Your task to perform on an android device: What's the news this evening? Image 0: 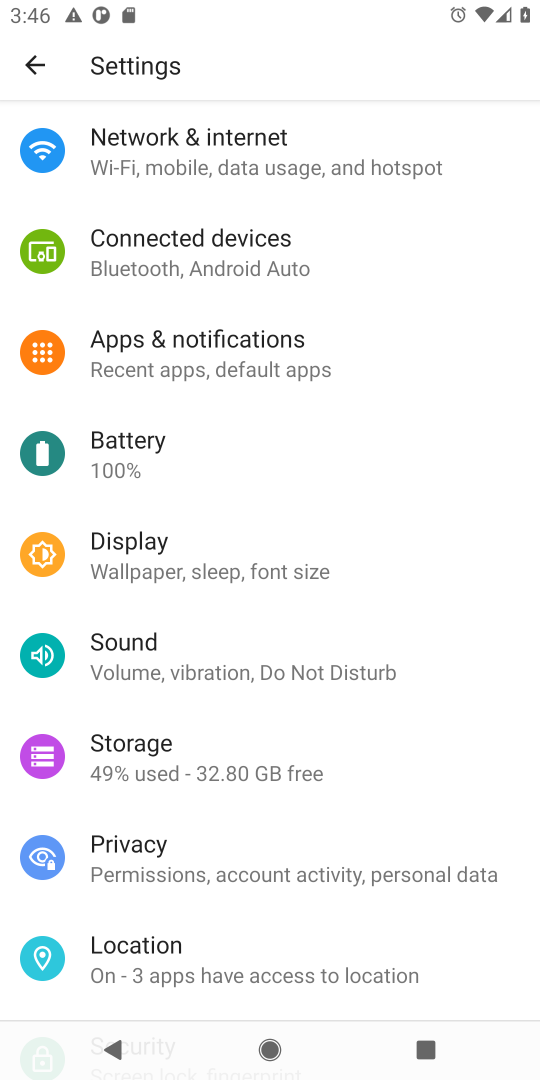
Step 0: press home button
Your task to perform on an android device: What's the news this evening? Image 1: 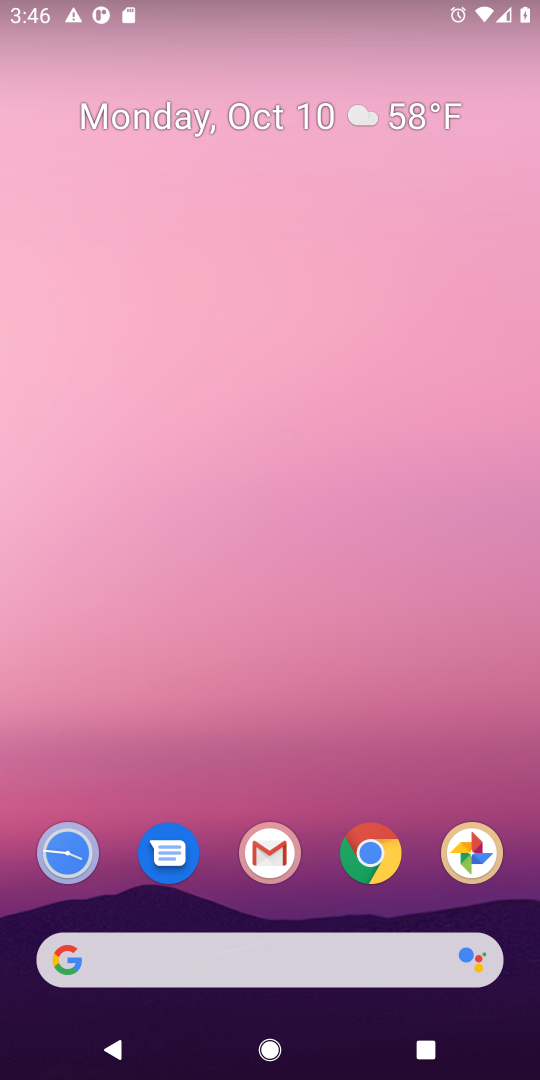
Step 1: click (369, 860)
Your task to perform on an android device: What's the news this evening? Image 2: 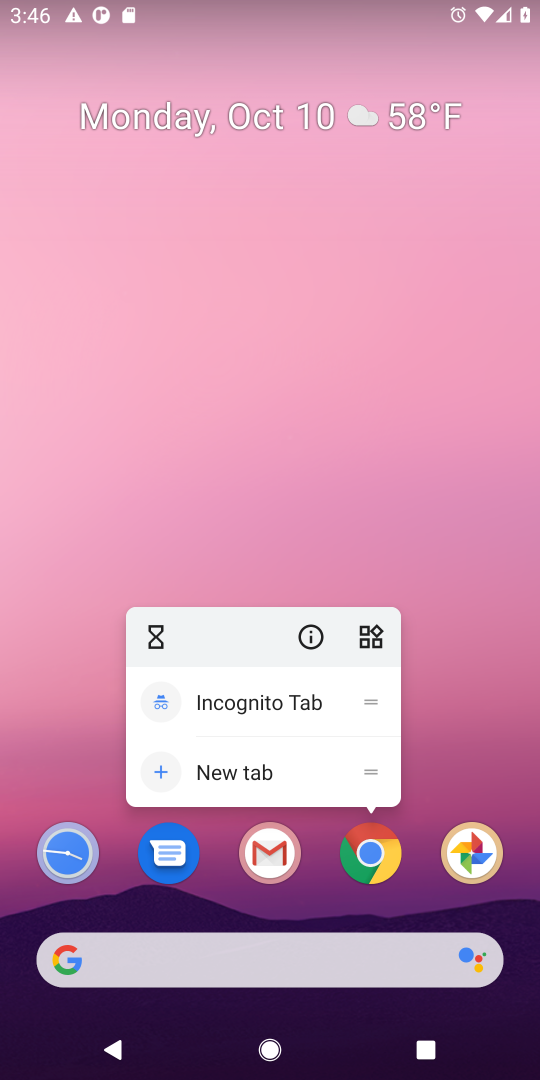
Step 2: click (470, 717)
Your task to perform on an android device: What's the news this evening? Image 3: 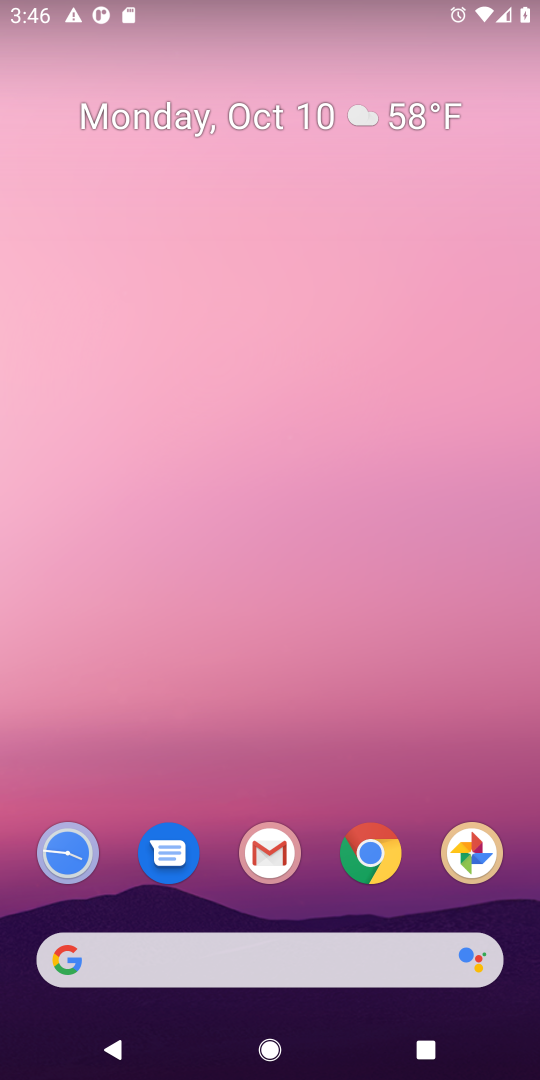
Step 3: click (372, 855)
Your task to perform on an android device: What's the news this evening? Image 4: 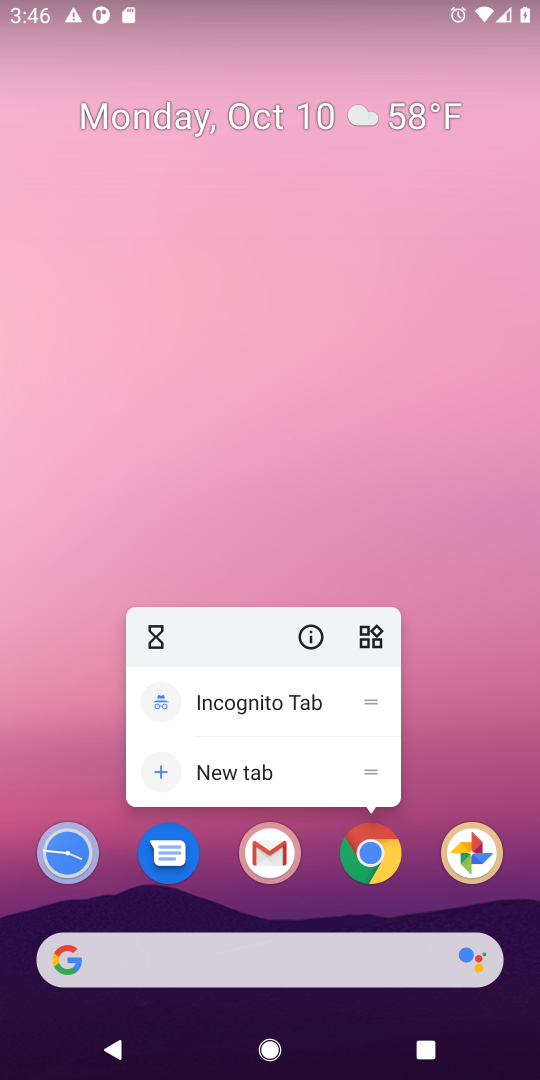
Step 4: click (372, 855)
Your task to perform on an android device: What's the news this evening? Image 5: 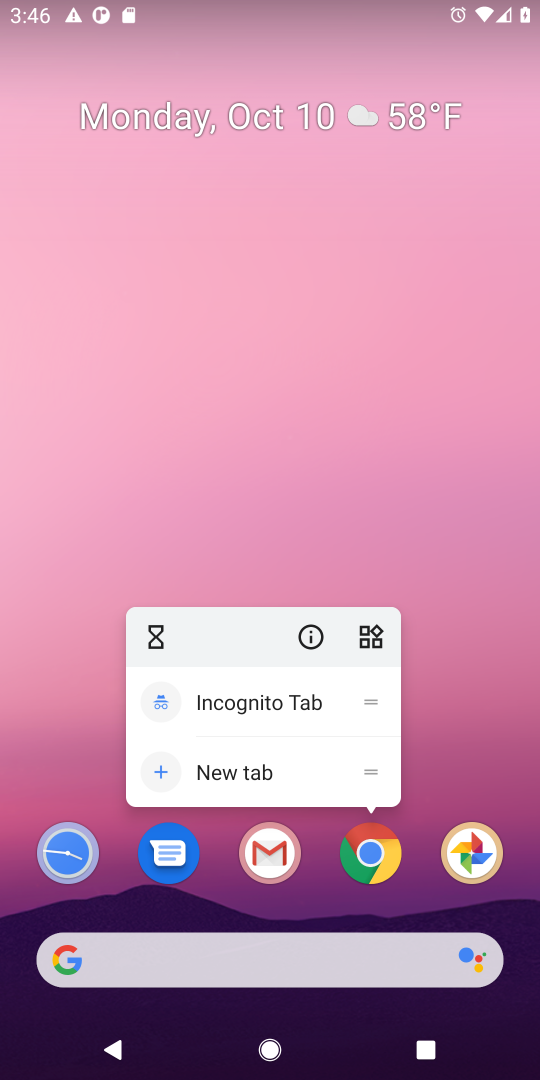
Step 5: click (372, 855)
Your task to perform on an android device: What's the news this evening? Image 6: 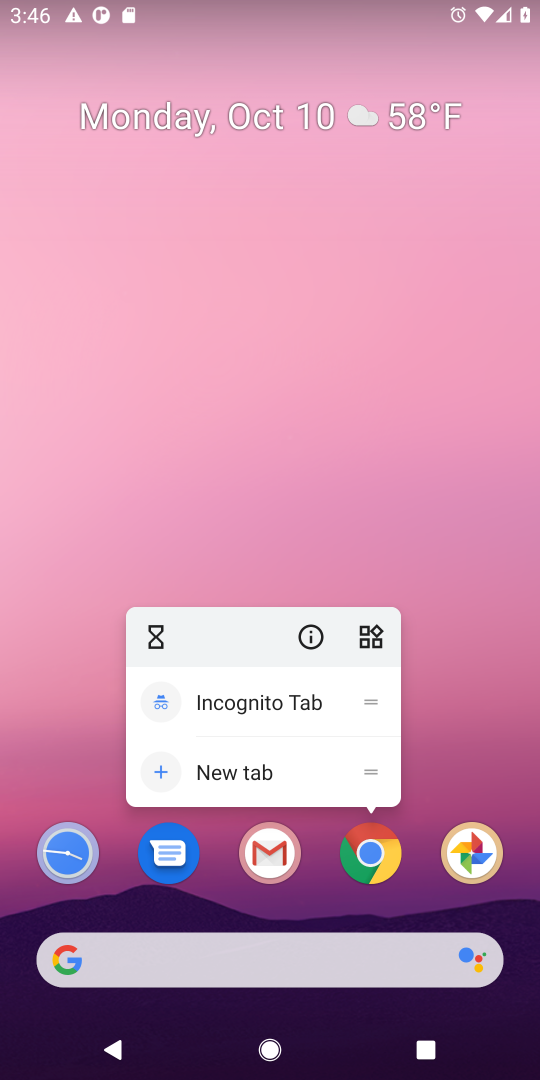
Step 6: click (372, 855)
Your task to perform on an android device: What's the news this evening? Image 7: 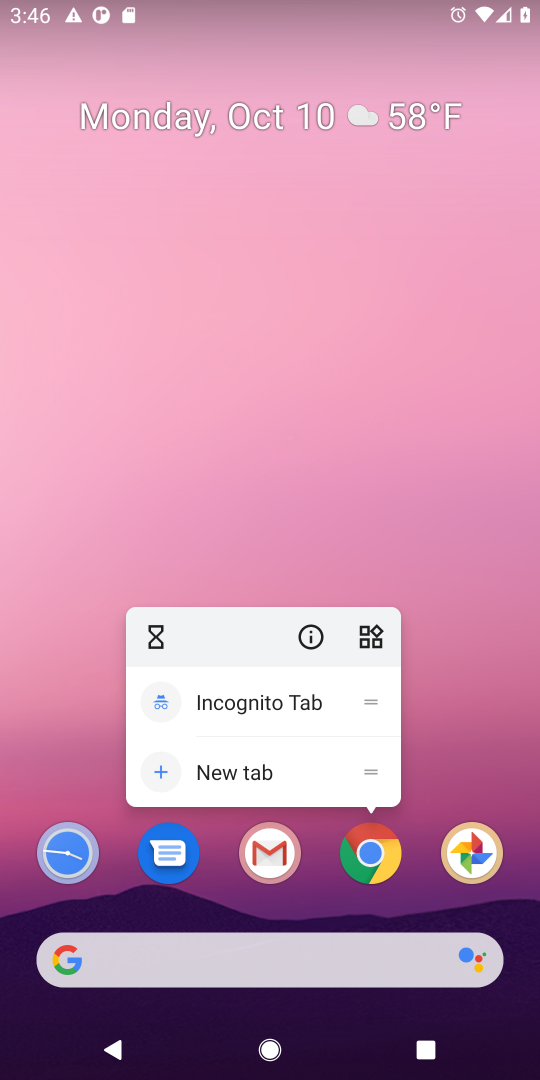
Step 7: click (390, 864)
Your task to perform on an android device: What's the news this evening? Image 8: 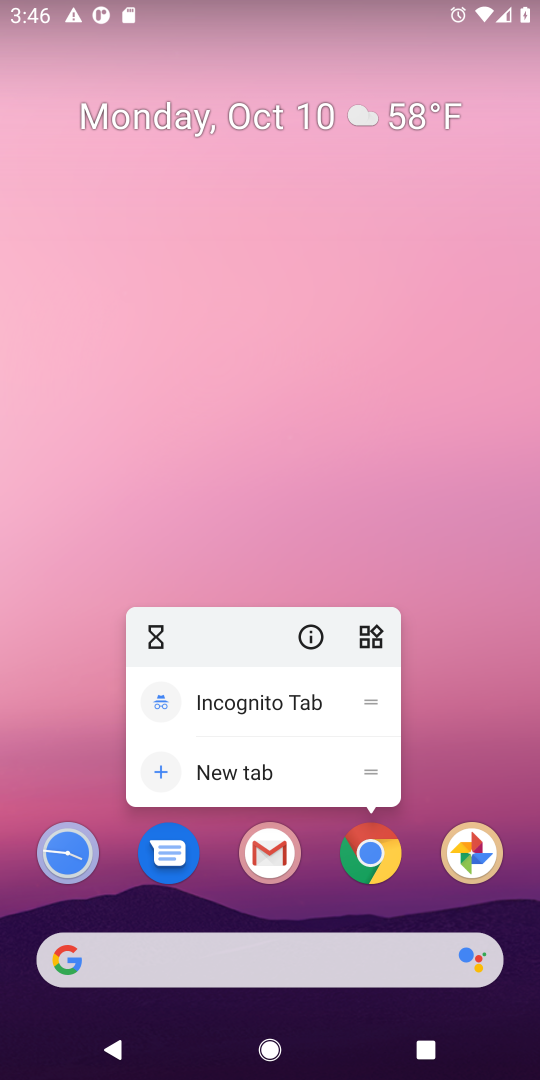
Step 8: click (367, 860)
Your task to perform on an android device: What's the news this evening? Image 9: 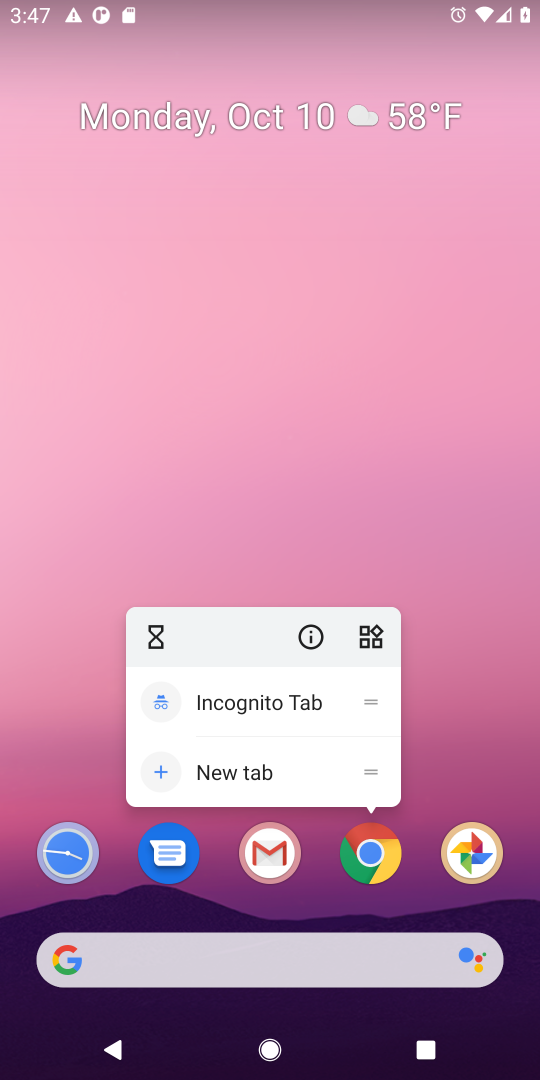
Step 9: click (367, 860)
Your task to perform on an android device: What's the news this evening? Image 10: 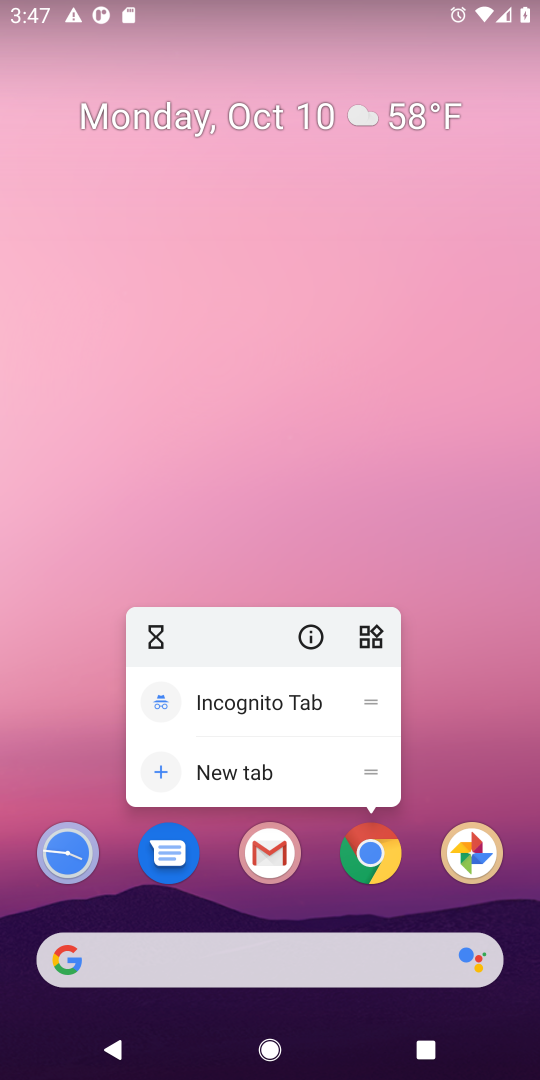
Step 10: click (383, 848)
Your task to perform on an android device: What's the news this evening? Image 11: 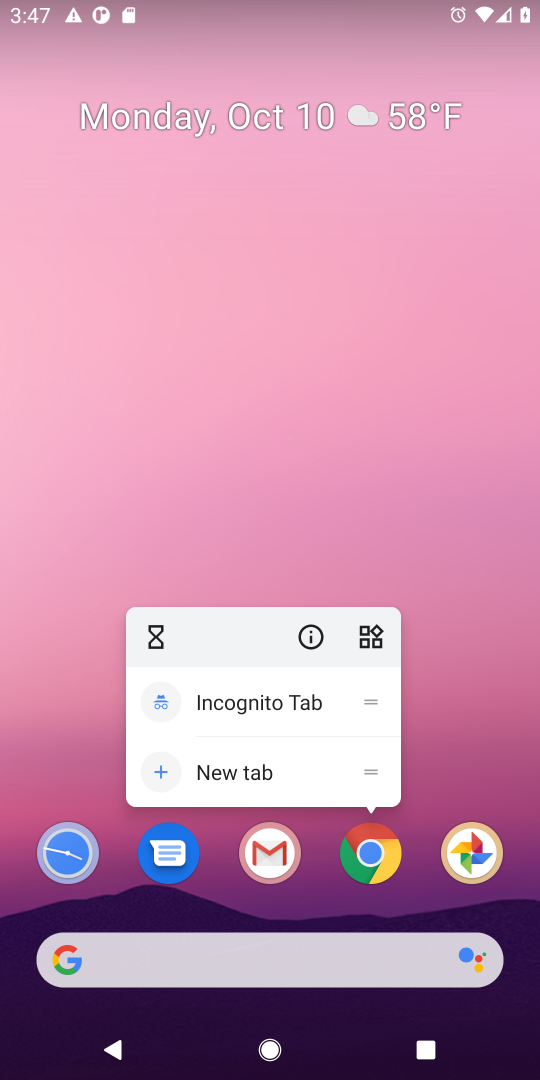
Step 11: click (389, 362)
Your task to perform on an android device: What's the news this evening? Image 12: 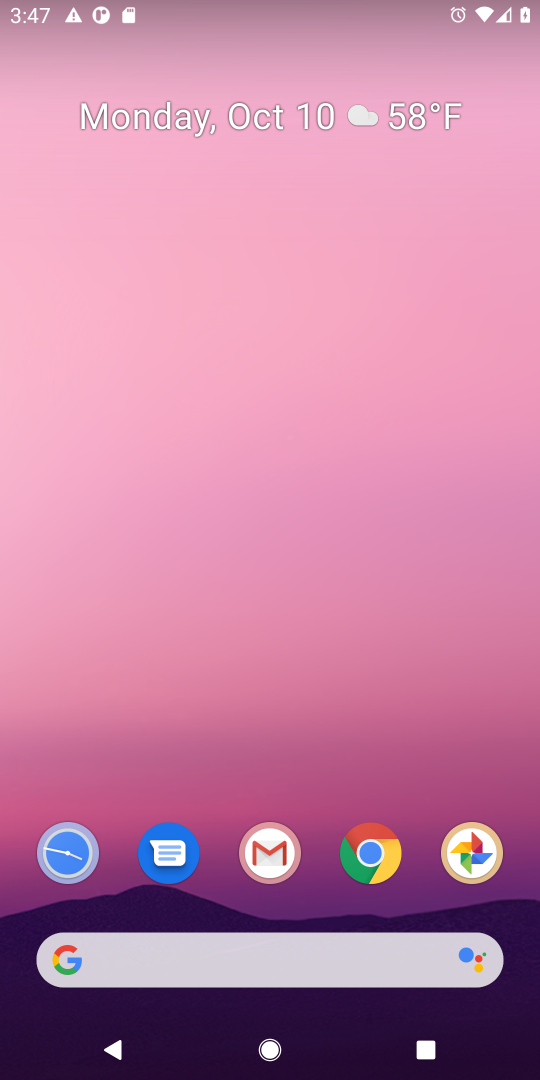
Step 12: drag from (359, 788) to (414, 0)
Your task to perform on an android device: What's the news this evening? Image 13: 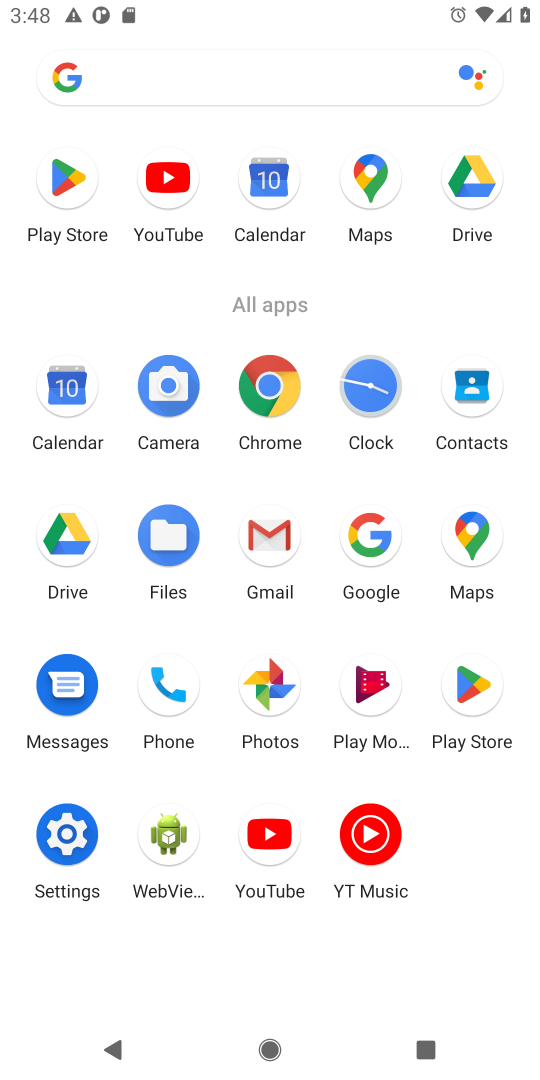
Step 13: click (270, 393)
Your task to perform on an android device: What's the news this evening? Image 14: 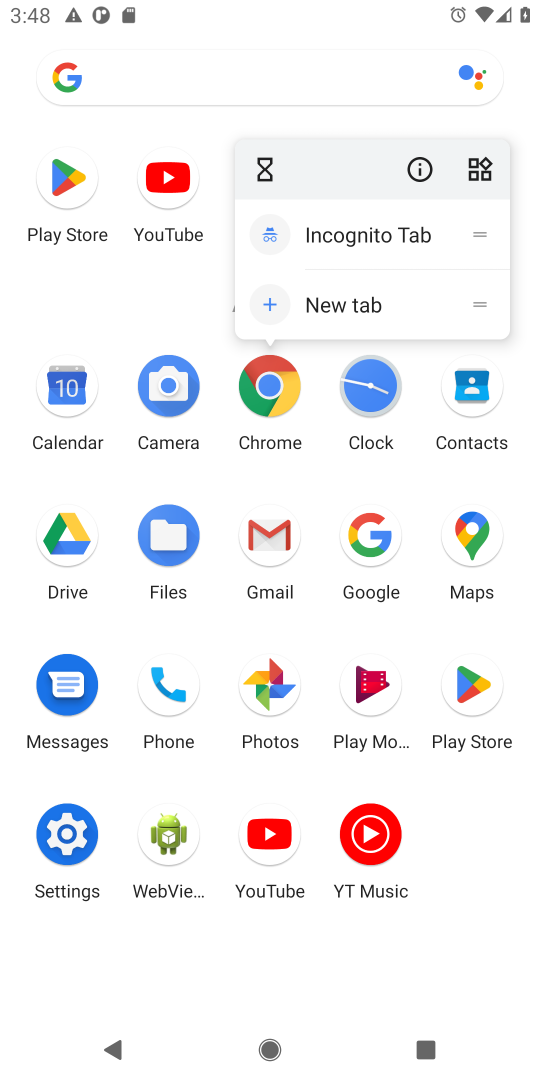
Step 14: click (267, 394)
Your task to perform on an android device: What's the news this evening? Image 15: 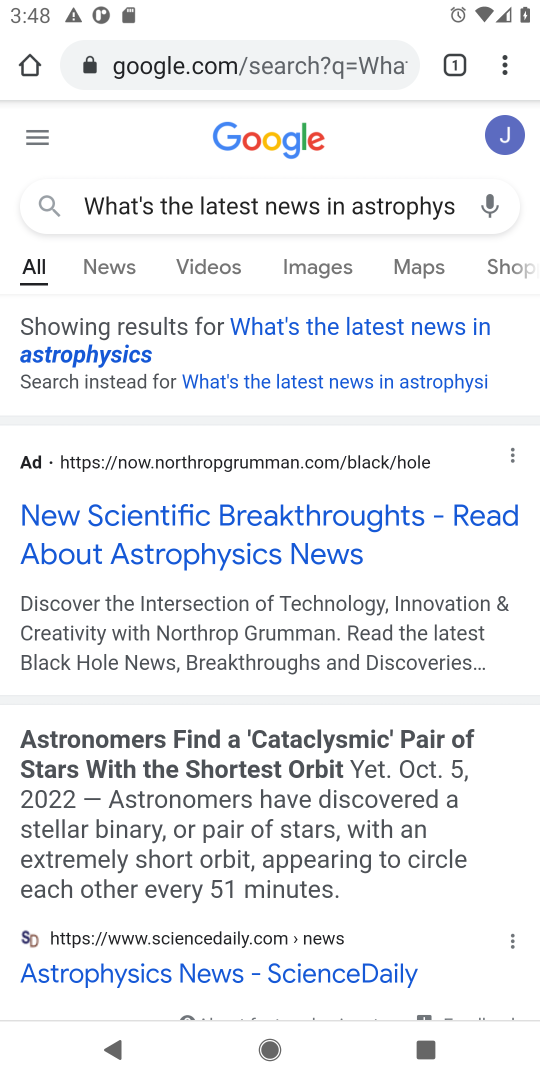
Step 15: click (179, 61)
Your task to perform on an android device: What's the news this evening? Image 16: 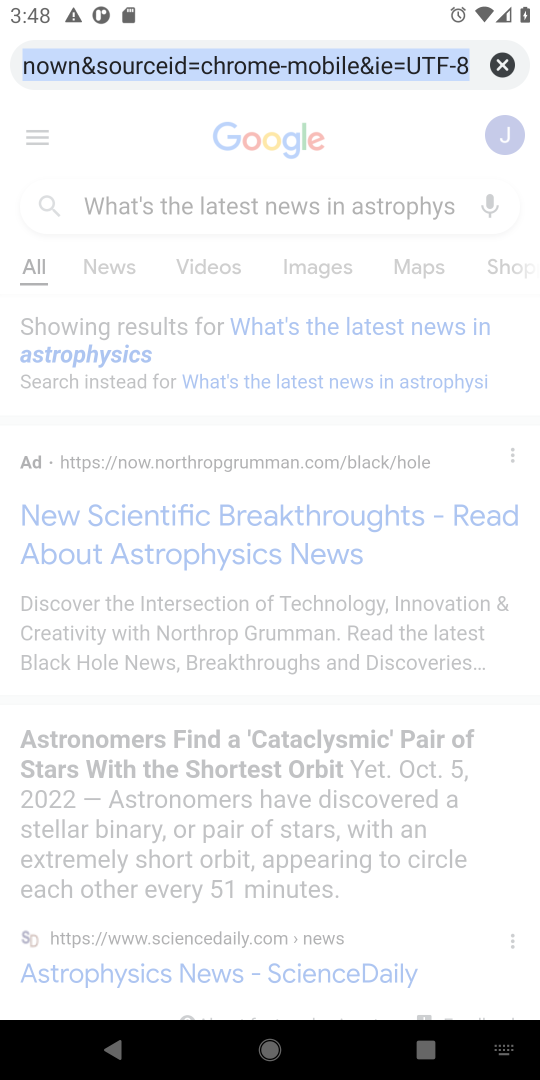
Step 16: click (498, 59)
Your task to perform on an android device: What's the news this evening? Image 17: 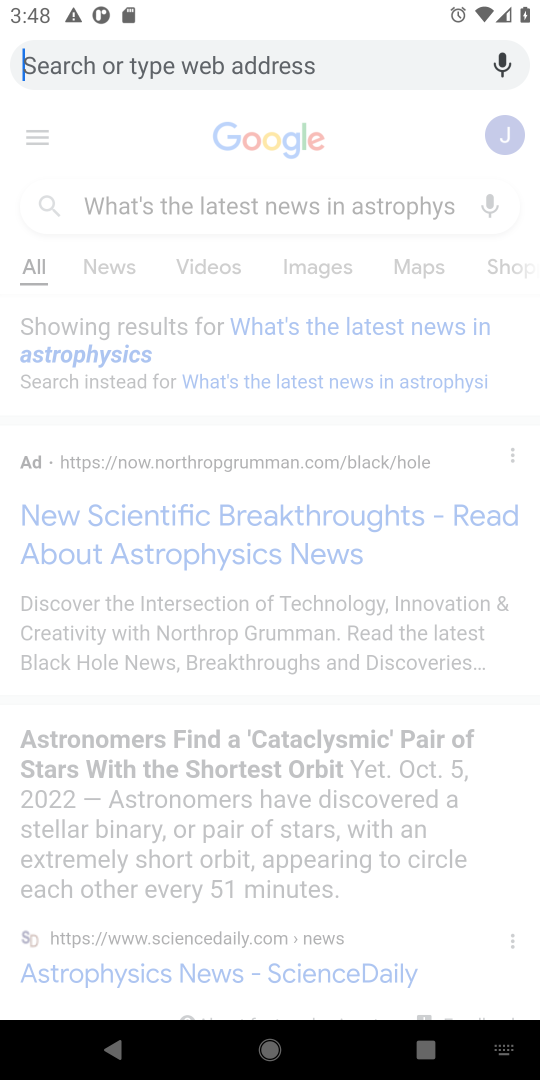
Step 17: type "What's the news this evening?"
Your task to perform on an android device: What's the news this evening? Image 18: 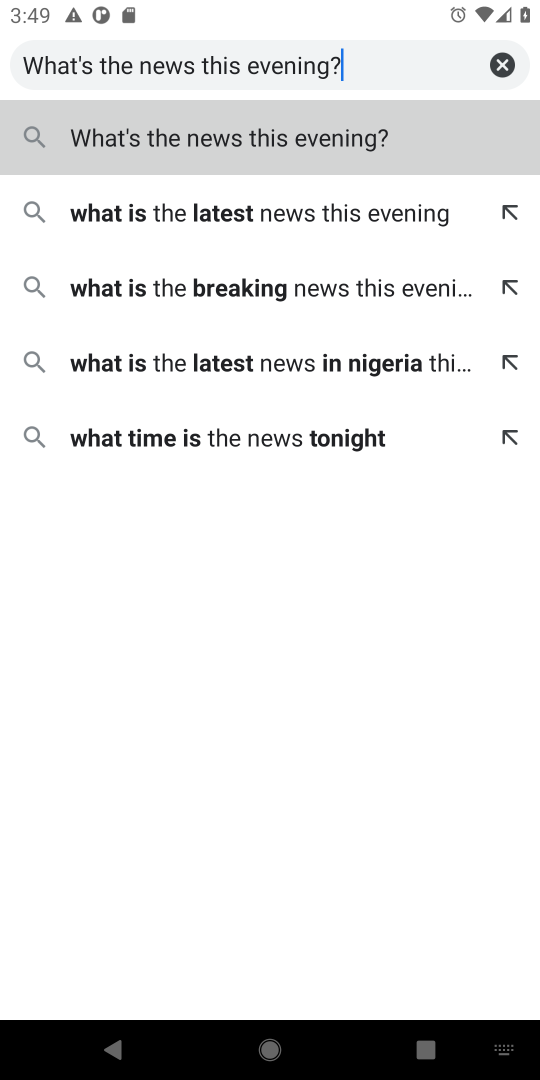
Step 18: click (196, 132)
Your task to perform on an android device: What's the news this evening? Image 19: 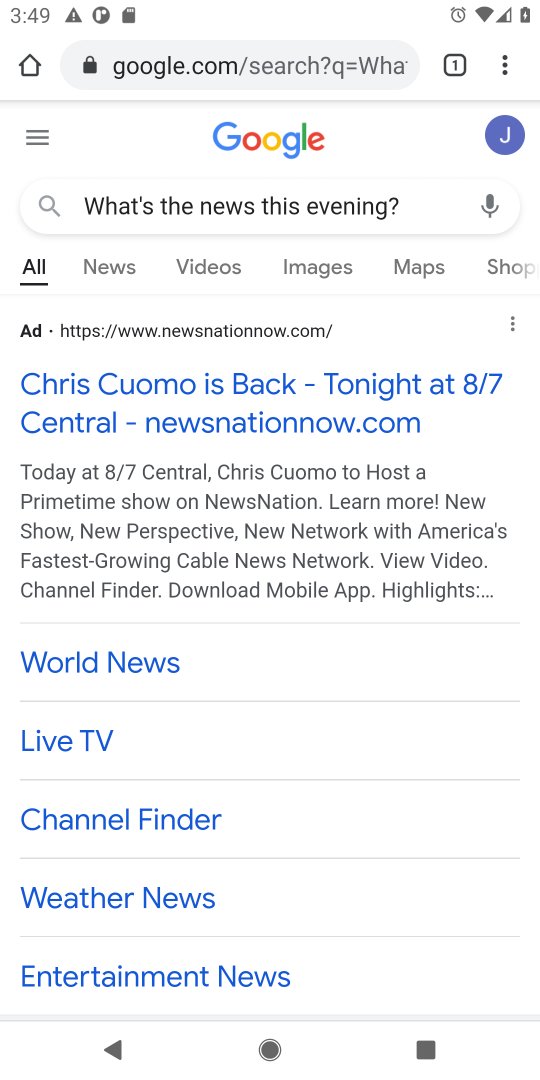
Step 19: task complete